Your task to perform on an android device: How do I get to the nearest Sprint Store? Image 0: 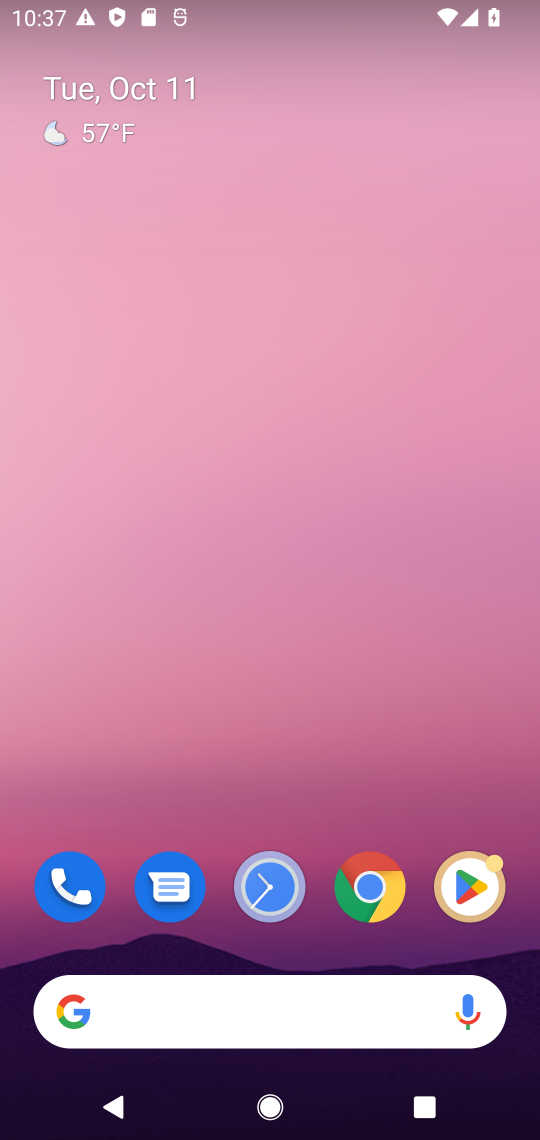
Step 0: press home button
Your task to perform on an android device: How do I get to the nearest Sprint Store? Image 1: 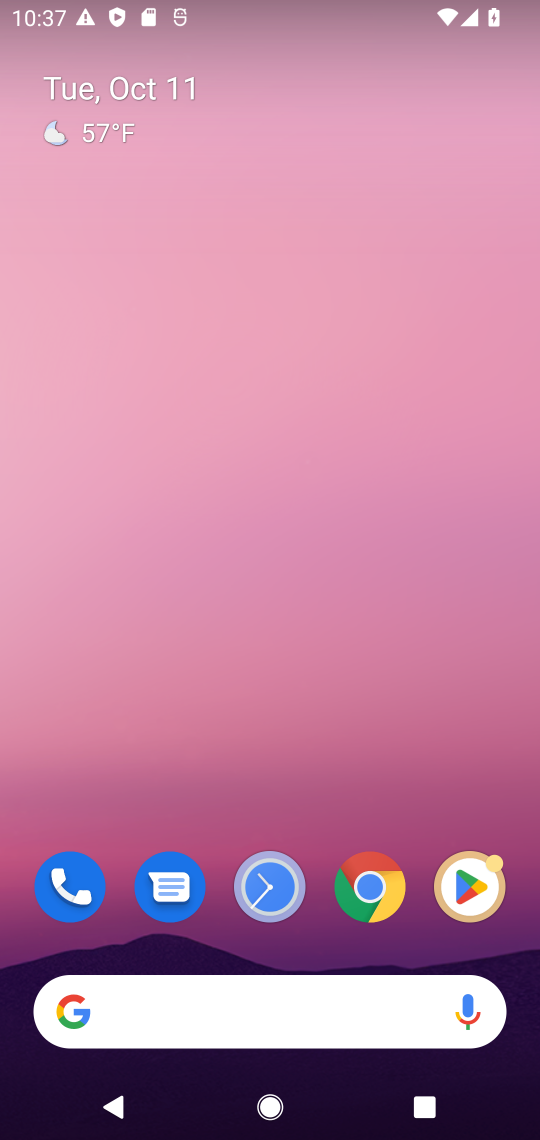
Step 1: click (248, 1000)
Your task to perform on an android device: How do I get to the nearest Sprint Store? Image 2: 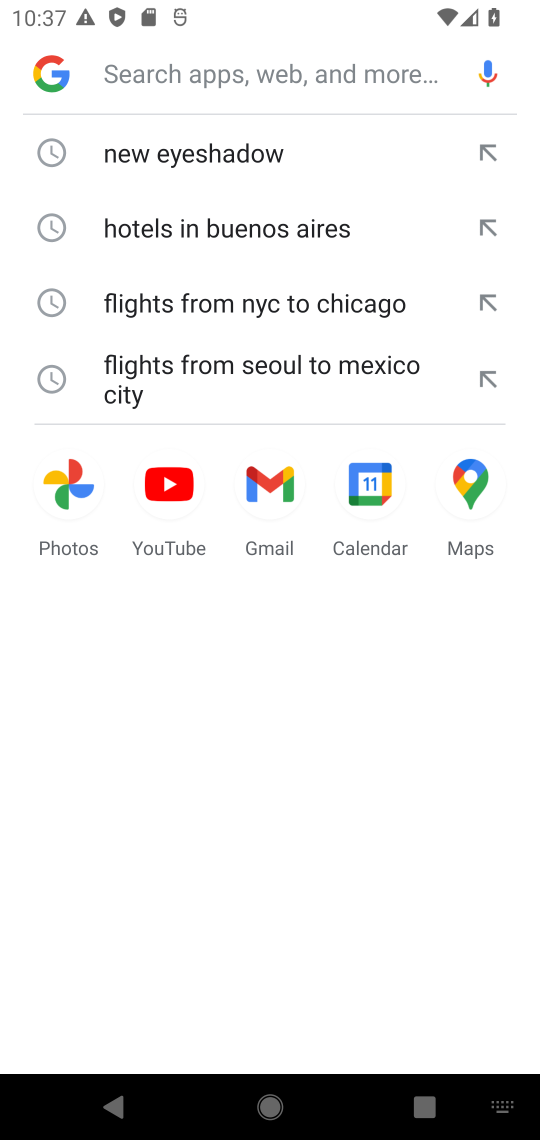
Step 2: type "How do I get to the nearest Sprint Store"
Your task to perform on an android device: How do I get to the nearest Sprint Store? Image 3: 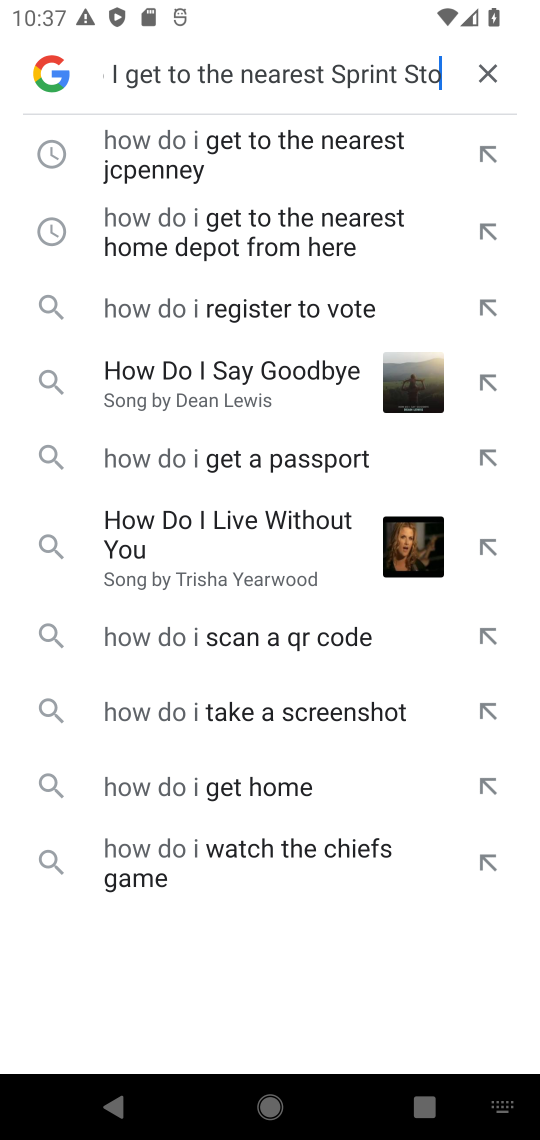
Step 3: press enter
Your task to perform on an android device: How do I get to the nearest Sprint Store? Image 4: 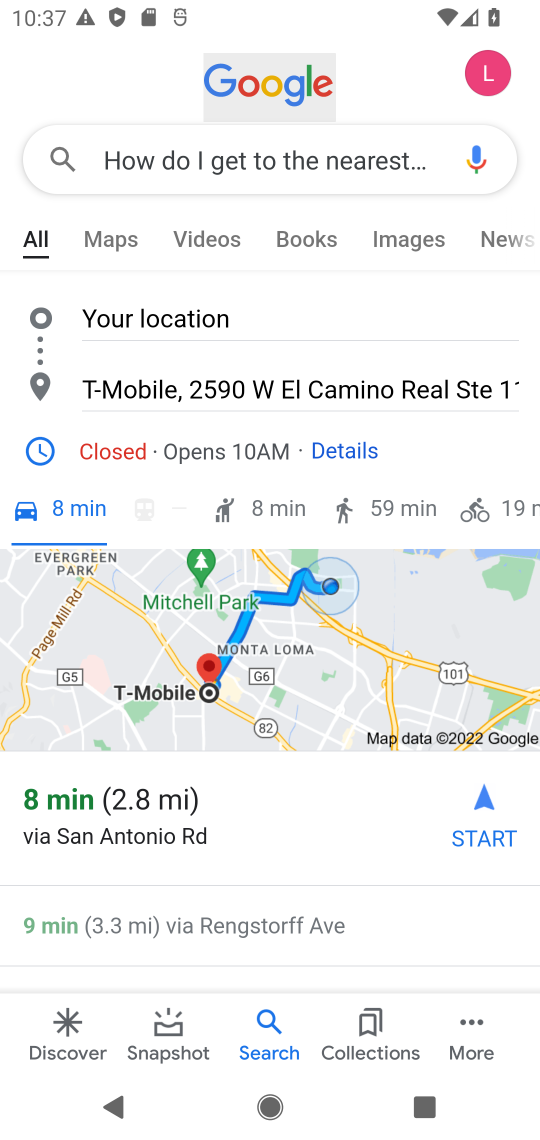
Step 4: task complete